Your task to perform on an android device: turn off location history Image 0: 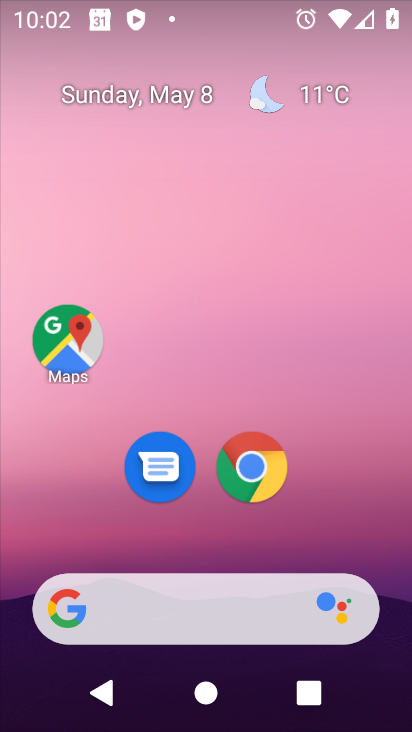
Step 0: drag from (58, 559) to (264, 166)
Your task to perform on an android device: turn off location history Image 1: 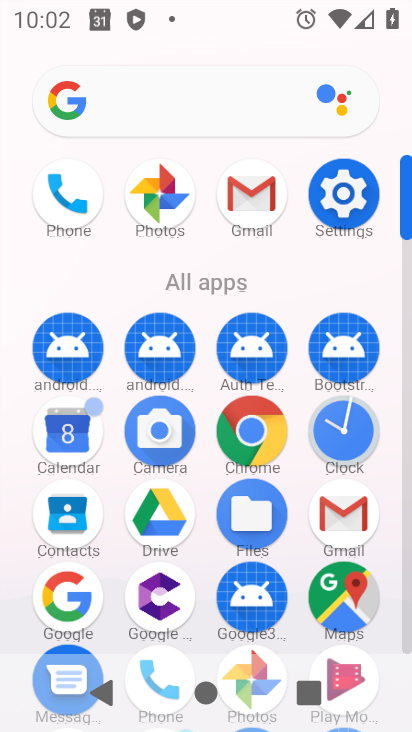
Step 1: click (333, 200)
Your task to perform on an android device: turn off location history Image 2: 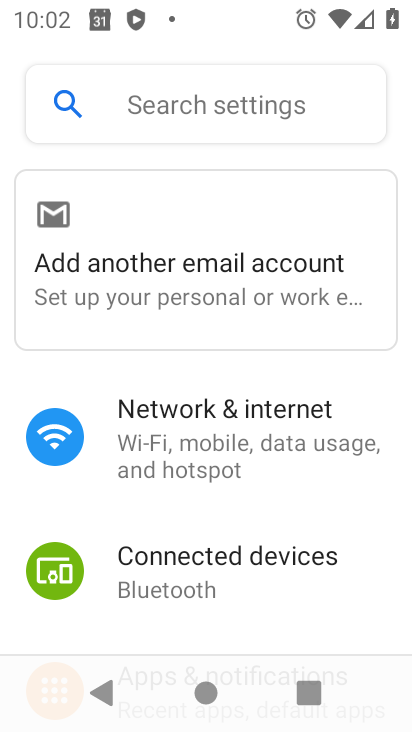
Step 2: drag from (152, 581) to (301, 176)
Your task to perform on an android device: turn off location history Image 3: 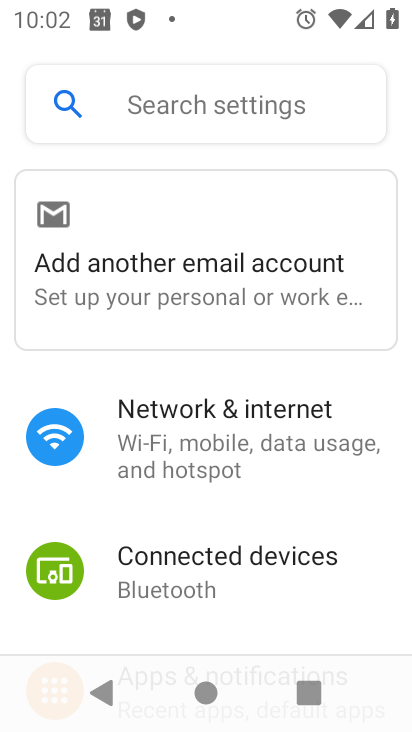
Step 3: drag from (20, 652) to (244, 167)
Your task to perform on an android device: turn off location history Image 4: 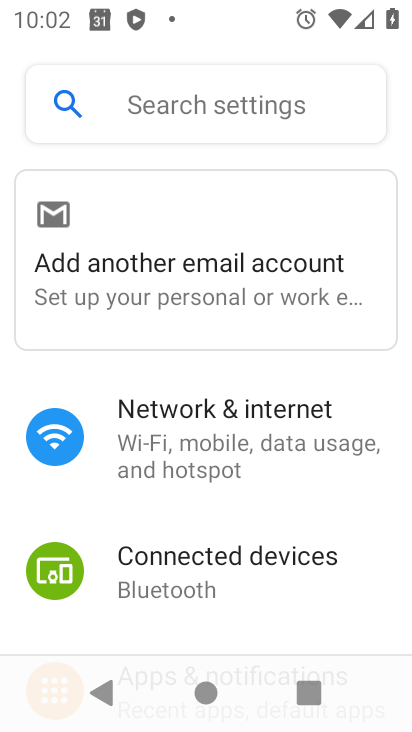
Step 4: drag from (31, 552) to (300, 162)
Your task to perform on an android device: turn off location history Image 5: 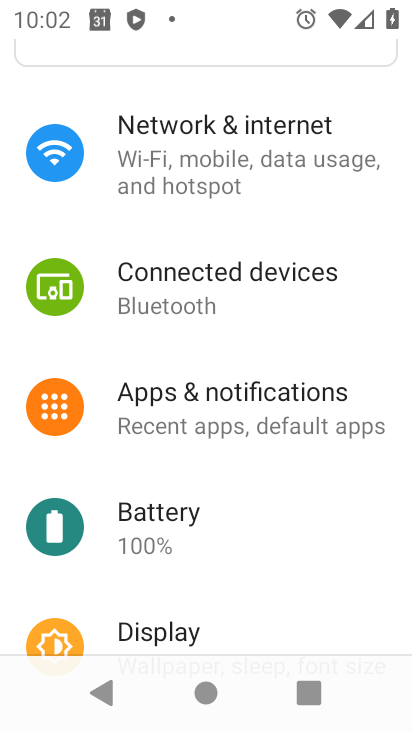
Step 5: drag from (170, 633) to (297, 231)
Your task to perform on an android device: turn off location history Image 6: 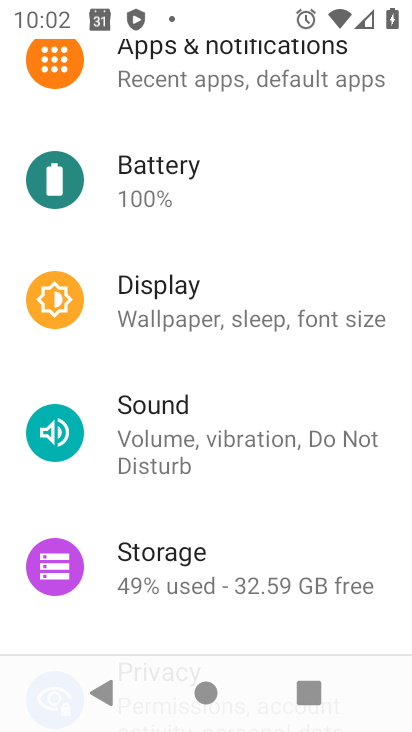
Step 6: drag from (154, 531) to (339, 175)
Your task to perform on an android device: turn off location history Image 7: 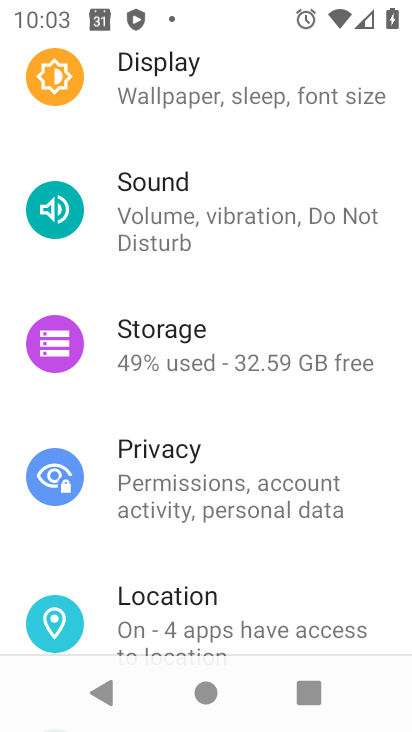
Step 7: click (165, 603)
Your task to perform on an android device: turn off location history Image 8: 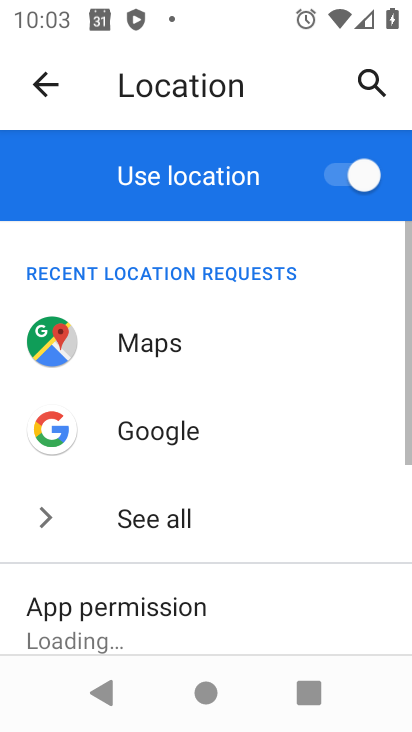
Step 8: drag from (129, 621) to (212, 323)
Your task to perform on an android device: turn off location history Image 9: 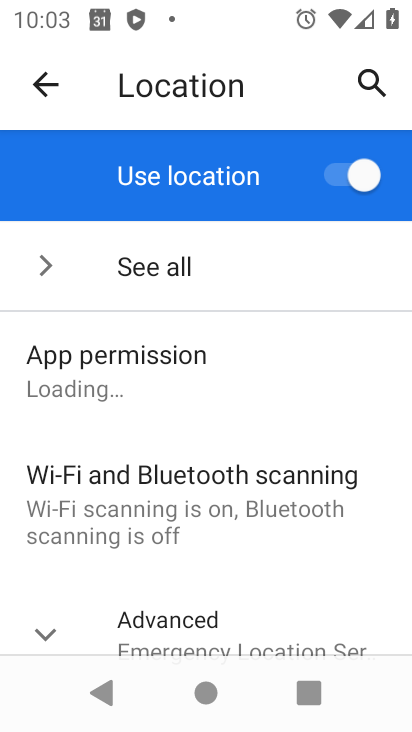
Step 9: drag from (112, 604) to (240, 288)
Your task to perform on an android device: turn off location history Image 10: 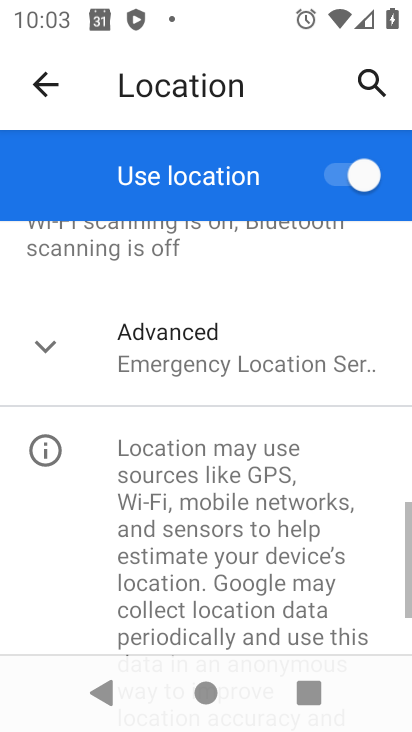
Step 10: click (236, 331)
Your task to perform on an android device: turn off location history Image 11: 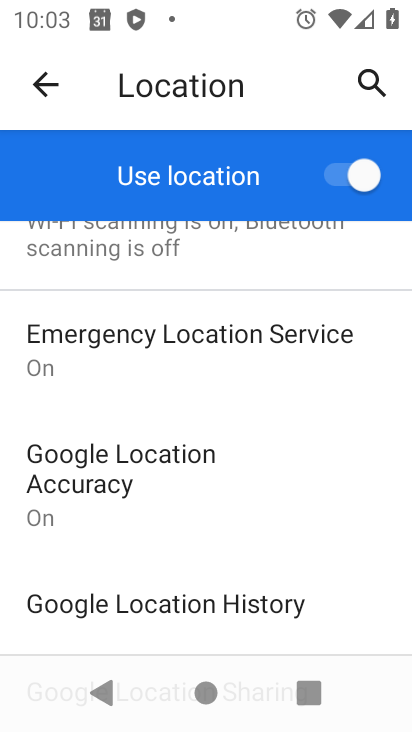
Step 11: click (128, 621)
Your task to perform on an android device: turn off location history Image 12: 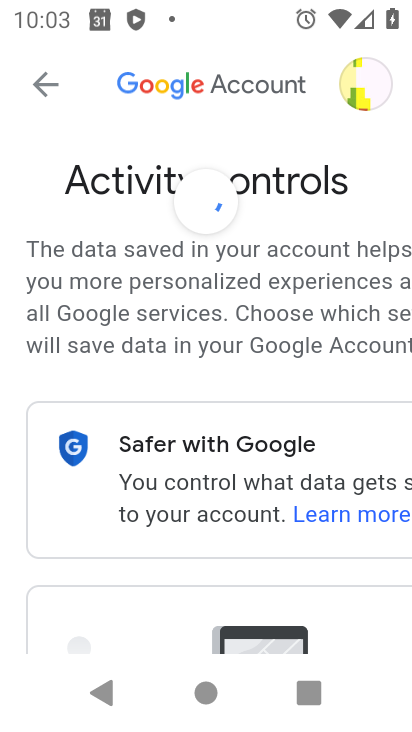
Step 12: drag from (69, 539) to (216, 96)
Your task to perform on an android device: turn off location history Image 13: 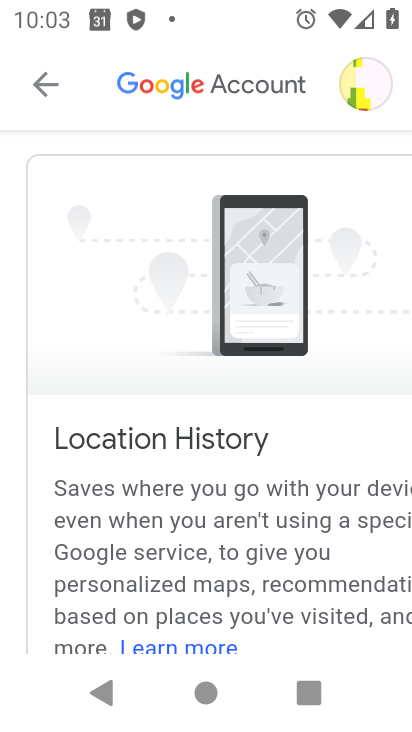
Step 13: drag from (123, 597) to (235, 120)
Your task to perform on an android device: turn off location history Image 14: 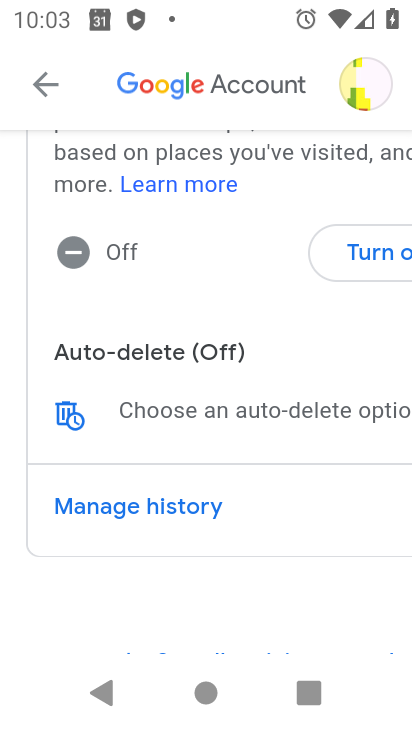
Step 14: click (379, 246)
Your task to perform on an android device: turn off location history Image 15: 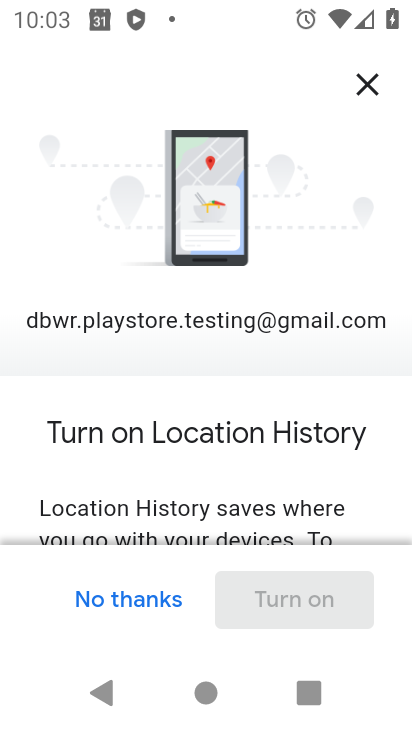
Step 15: click (141, 605)
Your task to perform on an android device: turn off location history Image 16: 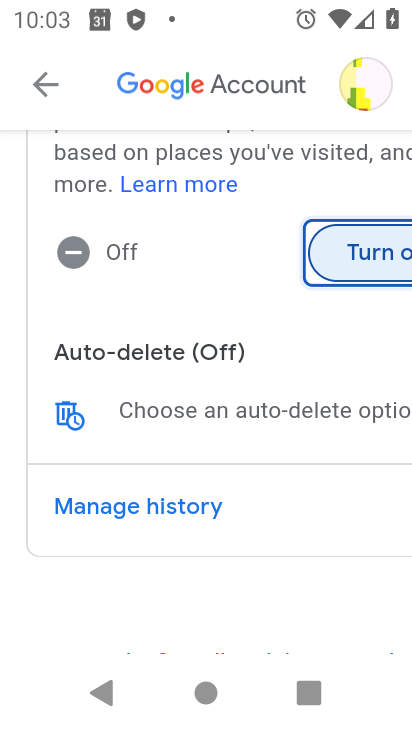
Step 16: task complete